Your task to perform on an android device: change the clock display to analog Image 0: 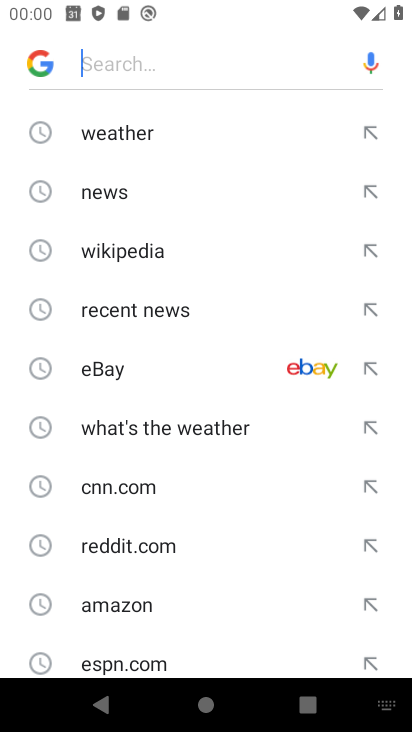
Step 0: press home button
Your task to perform on an android device: change the clock display to analog Image 1: 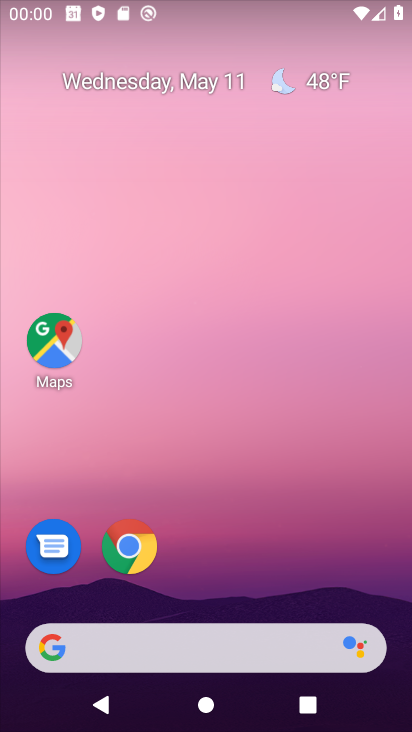
Step 1: drag from (250, 583) to (253, 177)
Your task to perform on an android device: change the clock display to analog Image 2: 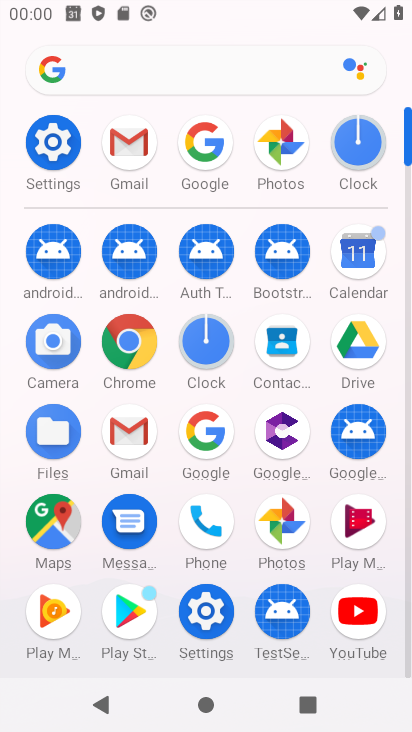
Step 2: click (347, 148)
Your task to perform on an android device: change the clock display to analog Image 3: 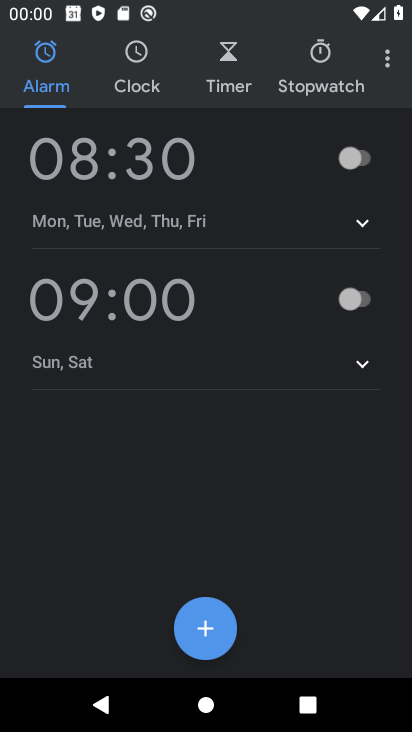
Step 3: click (384, 58)
Your task to perform on an android device: change the clock display to analog Image 4: 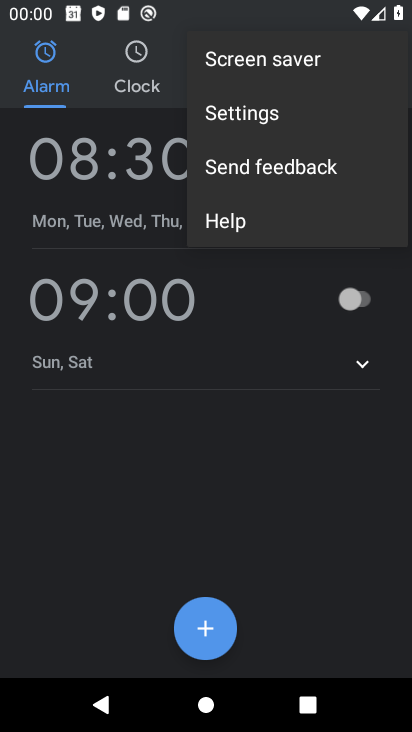
Step 4: click (244, 127)
Your task to perform on an android device: change the clock display to analog Image 5: 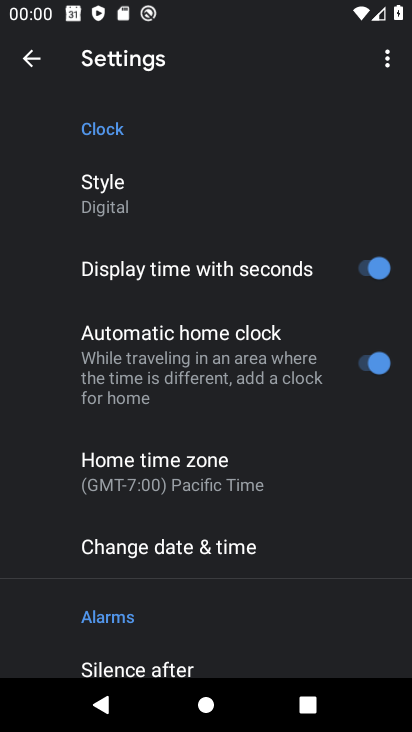
Step 5: click (176, 203)
Your task to perform on an android device: change the clock display to analog Image 6: 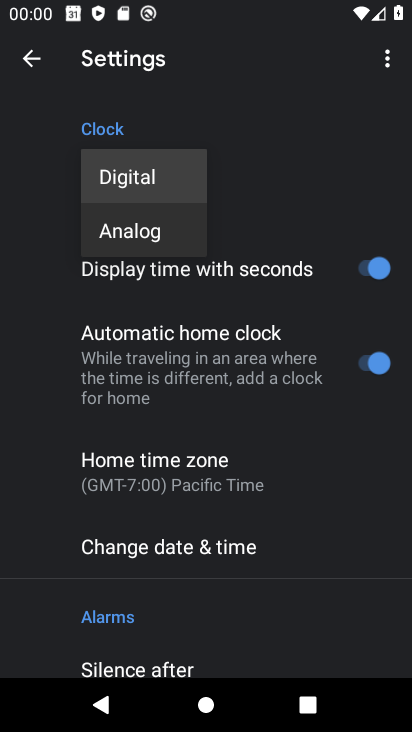
Step 6: click (134, 229)
Your task to perform on an android device: change the clock display to analog Image 7: 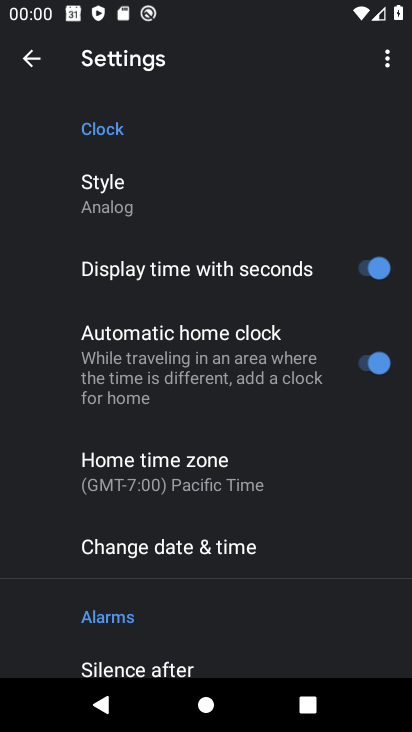
Step 7: task complete